Your task to perform on an android device: Open the calendar and show me this week's events? Image 0: 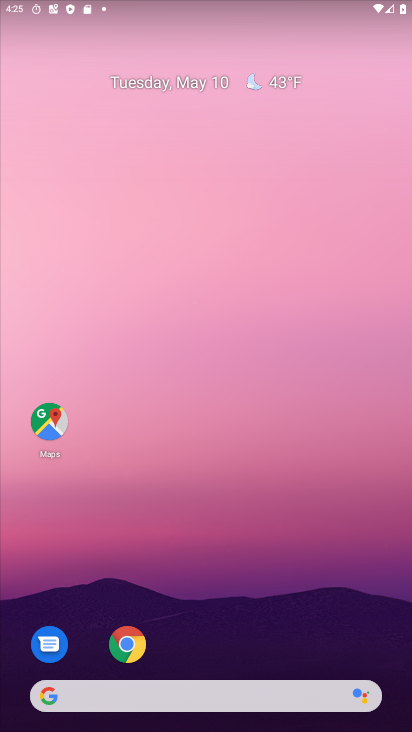
Step 0: drag from (226, 674) to (226, 283)
Your task to perform on an android device: Open the calendar and show me this week's events? Image 1: 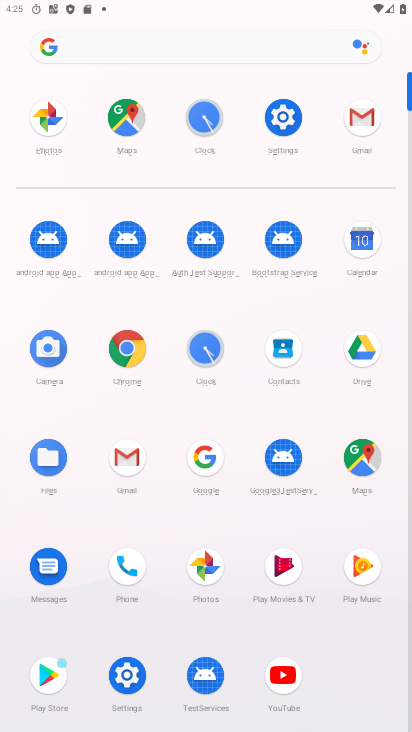
Step 1: click (367, 235)
Your task to perform on an android device: Open the calendar and show me this week's events? Image 2: 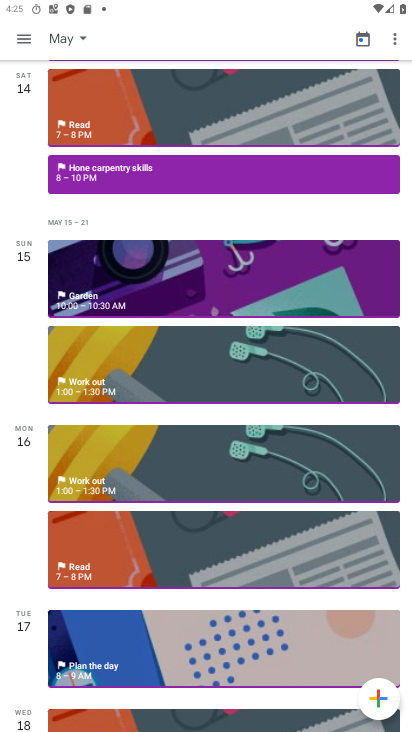
Step 2: task complete